Your task to perform on an android device: turn on bluetooth scan Image 0: 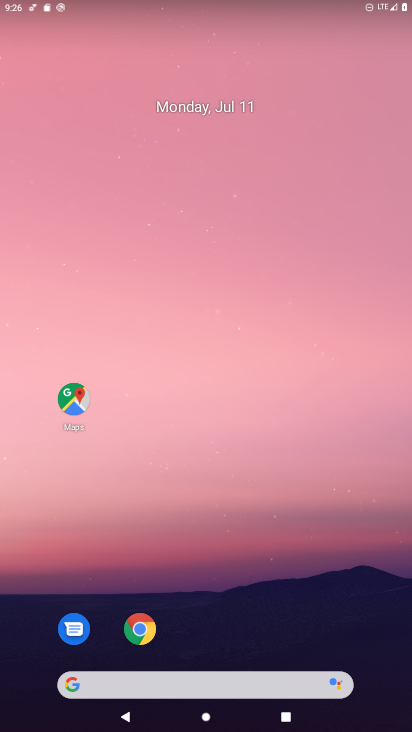
Step 0: drag from (301, 11) to (354, 654)
Your task to perform on an android device: turn on bluetooth scan Image 1: 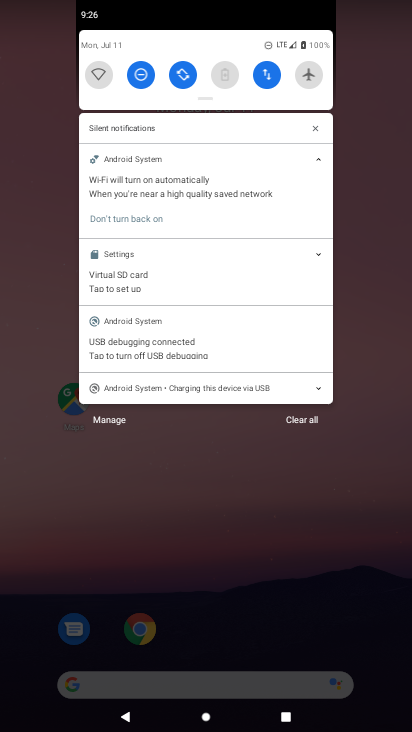
Step 1: drag from (219, 49) to (253, 528)
Your task to perform on an android device: turn on bluetooth scan Image 2: 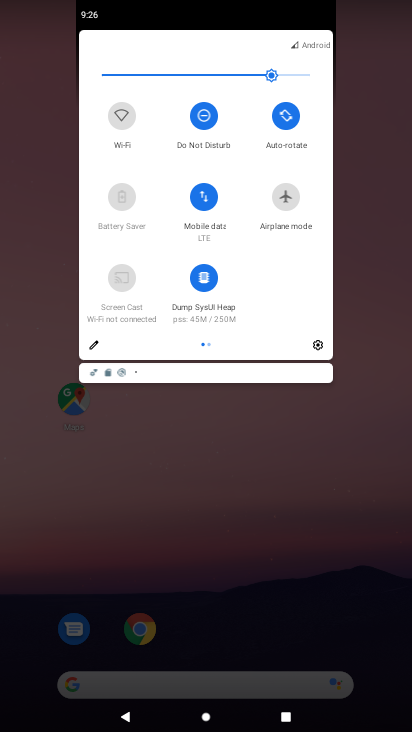
Step 2: click (320, 341)
Your task to perform on an android device: turn on bluetooth scan Image 3: 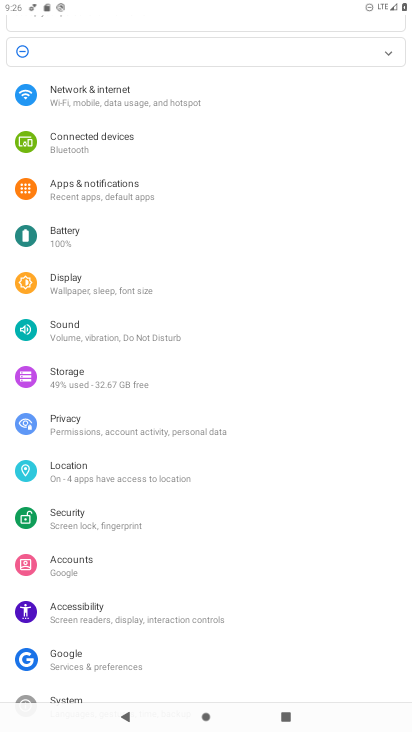
Step 3: click (96, 477)
Your task to perform on an android device: turn on bluetooth scan Image 4: 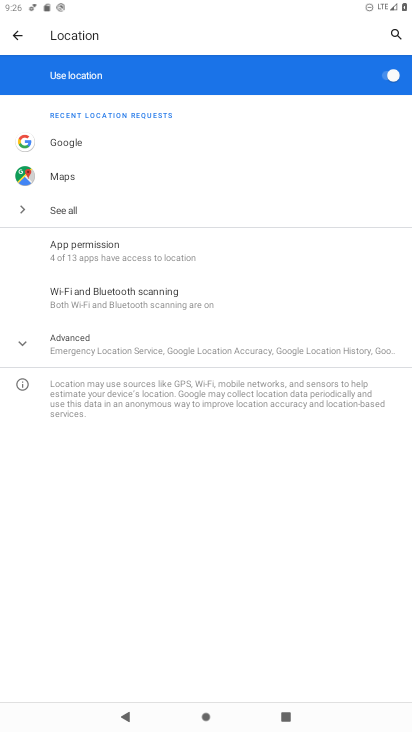
Step 4: click (147, 307)
Your task to perform on an android device: turn on bluetooth scan Image 5: 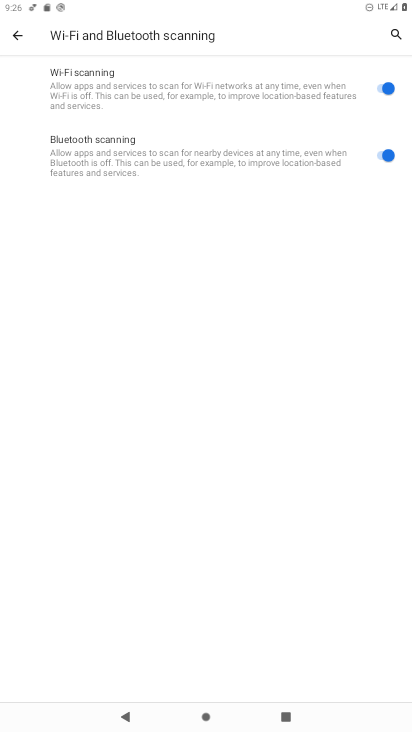
Step 5: task complete